Your task to perform on an android device: Toggle the flashlight Image 0: 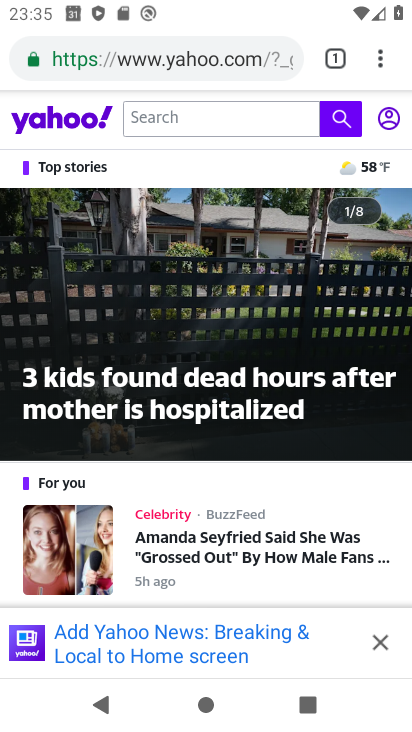
Step 0: press home button
Your task to perform on an android device: Toggle the flashlight Image 1: 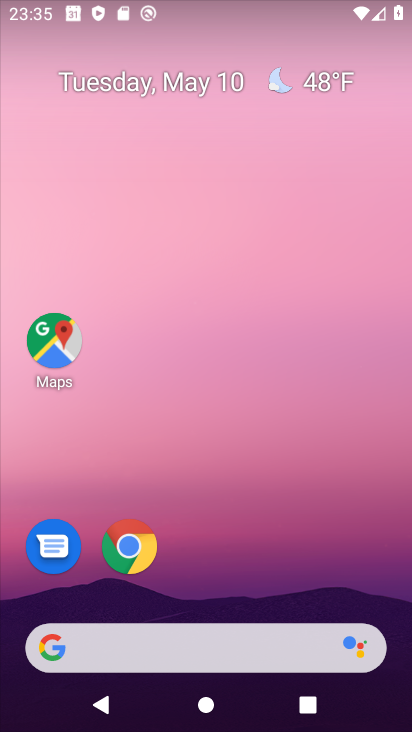
Step 1: drag from (245, 599) to (211, 140)
Your task to perform on an android device: Toggle the flashlight Image 2: 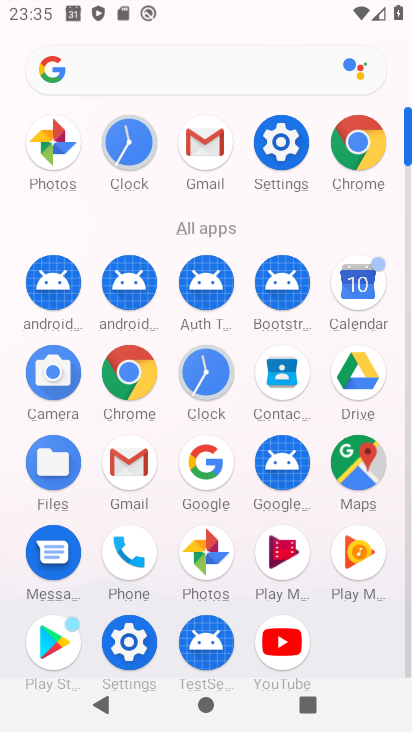
Step 2: click (262, 150)
Your task to perform on an android device: Toggle the flashlight Image 3: 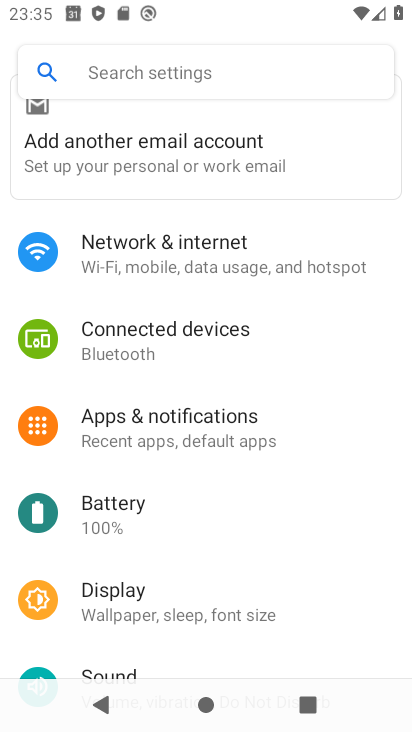
Step 3: click (188, 398)
Your task to perform on an android device: Toggle the flashlight Image 4: 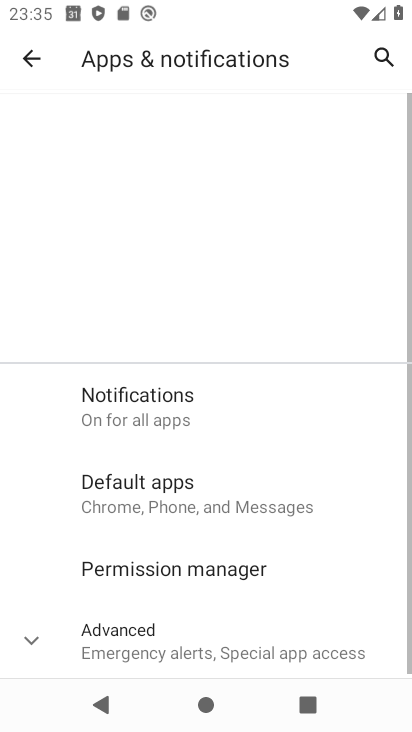
Step 4: task complete